Your task to perform on an android device: move a message to another label in the gmail app Image 0: 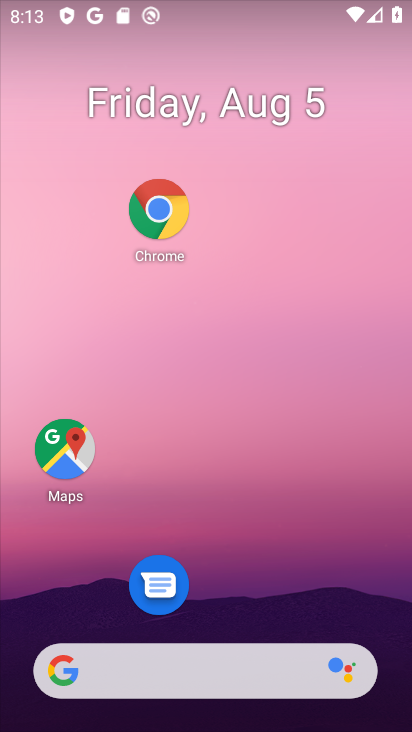
Step 0: drag from (208, 618) to (169, 116)
Your task to perform on an android device: move a message to another label in the gmail app Image 1: 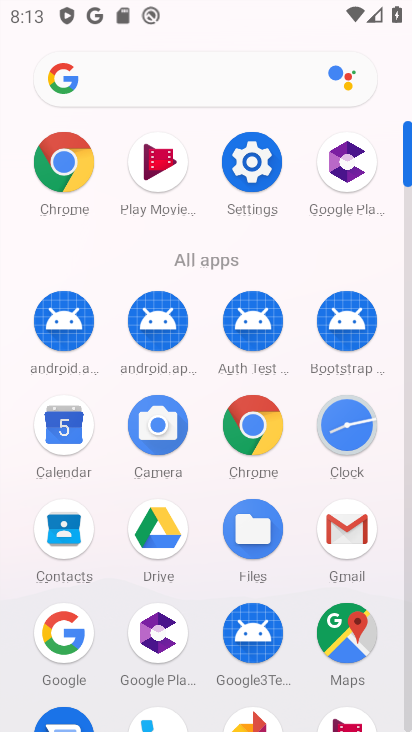
Step 1: drag from (202, 646) to (203, 10)
Your task to perform on an android device: move a message to another label in the gmail app Image 2: 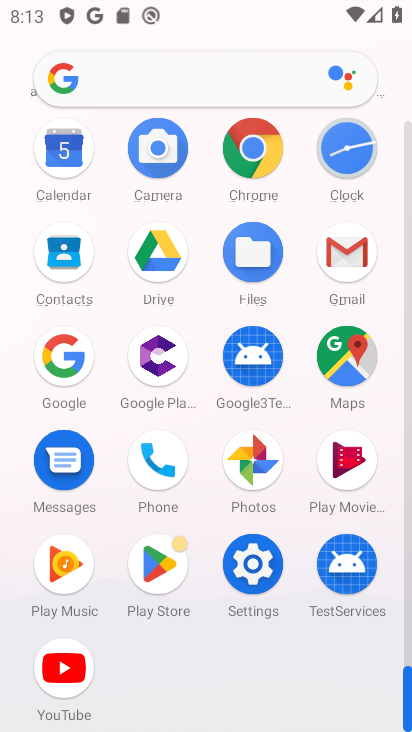
Step 2: click (76, 465)
Your task to perform on an android device: move a message to another label in the gmail app Image 3: 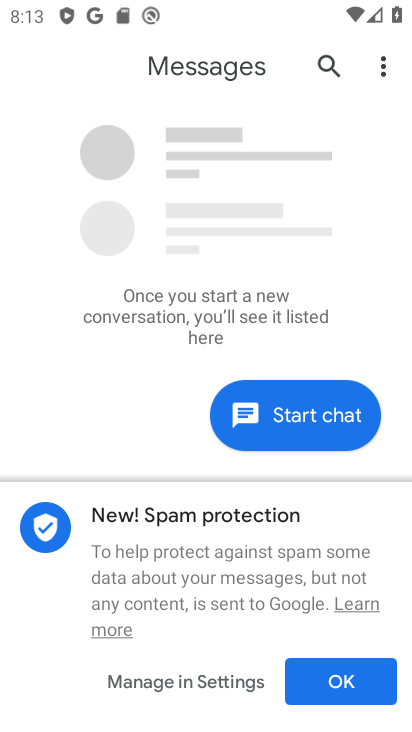
Step 3: click (362, 666)
Your task to perform on an android device: move a message to another label in the gmail app Image 4: 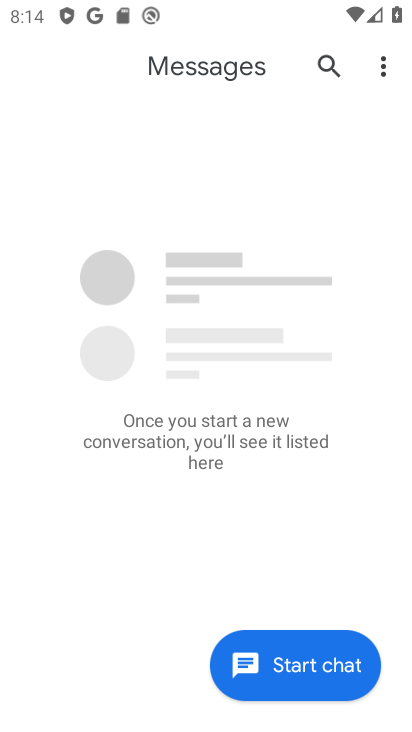
Step 4: press home button
Your task to perform on an android device: move a message to another label in the gmail app Image 5: 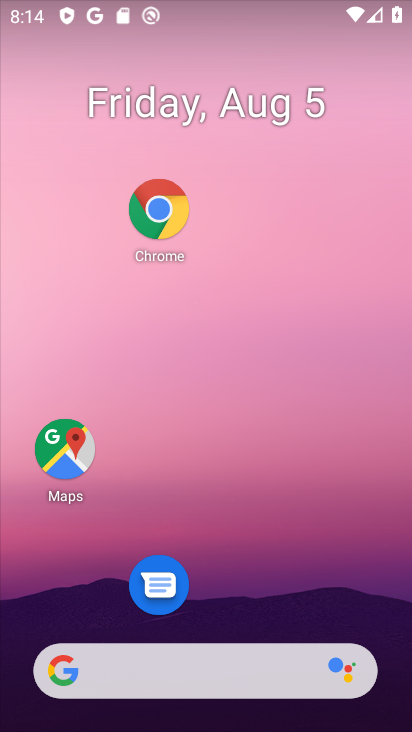
Step 5: drag from (253, 616) to (163, 66)
Your task to perform on an android device: move a message to another label in the gmail app Image 6: 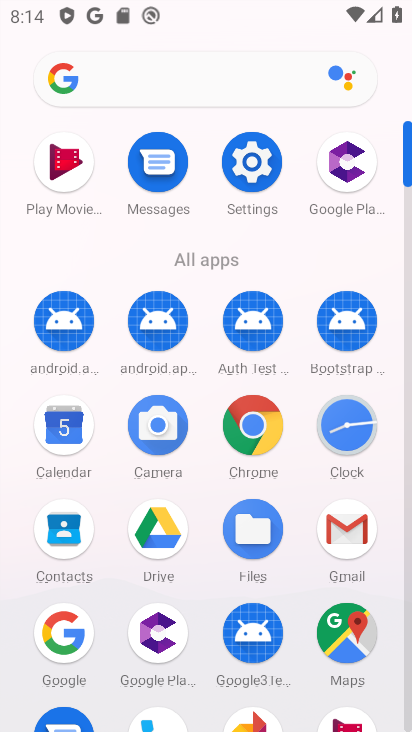
Step 6: click (335, 523)
Your task to perform on an android device: move a message to another label in the gmail app Image 7: 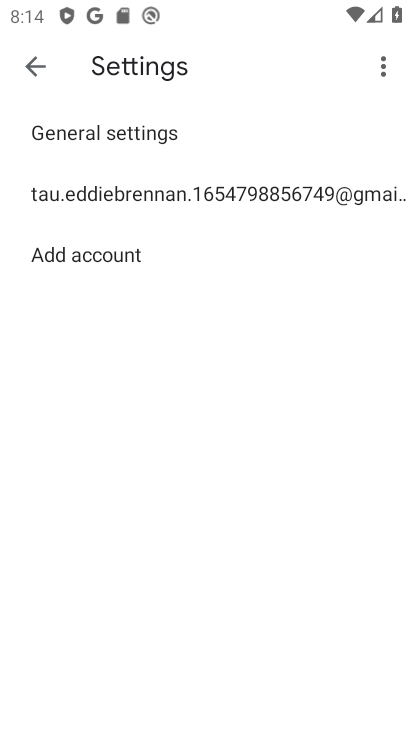
Step 7: click (86, 47)
Your task to perform on an android device: move a message to another label in the gmail app Image 8: 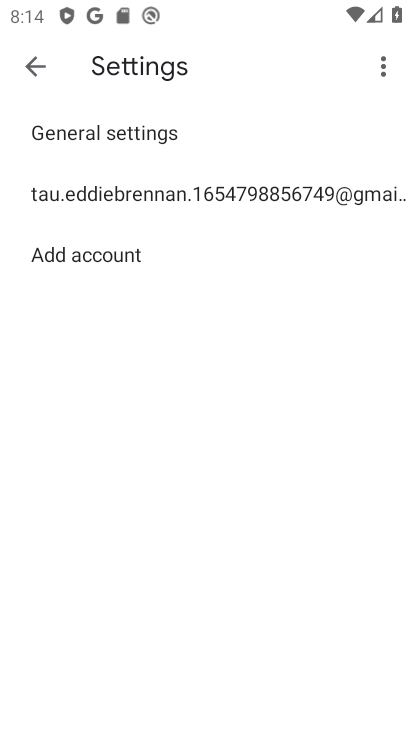
Step 8: click (39, 56)
Your task to perform on an android device: move a message to another label in the gmail app Image 9: 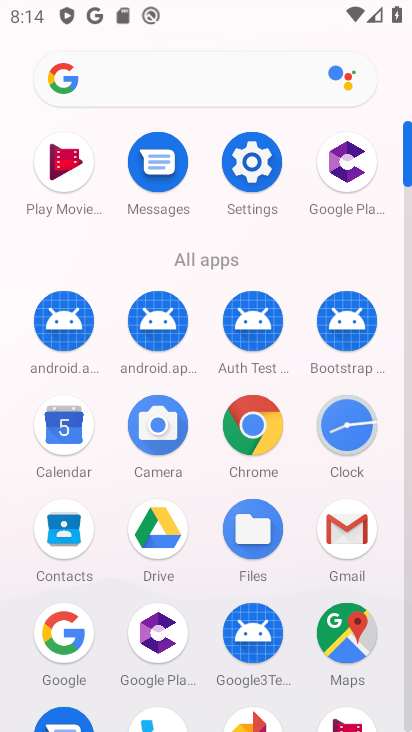
Step 9: click (341, 501)
Your task to perform on an android device: move a message to another label in the gmail app Image 10: 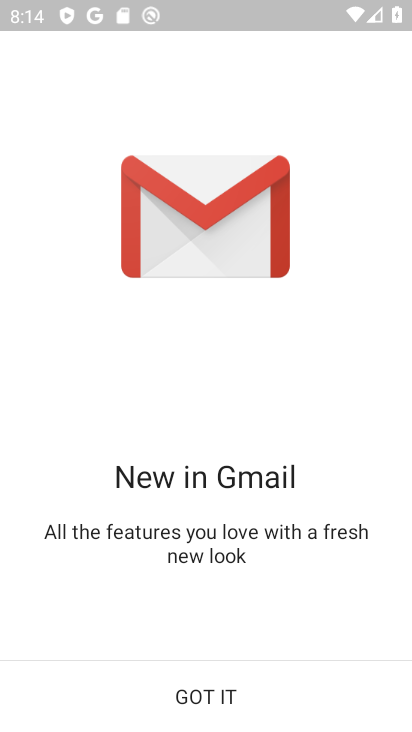
Step 10: click (273, 704)
Your task to perform on an android device: move a message to another label in the gmail app Image 11: 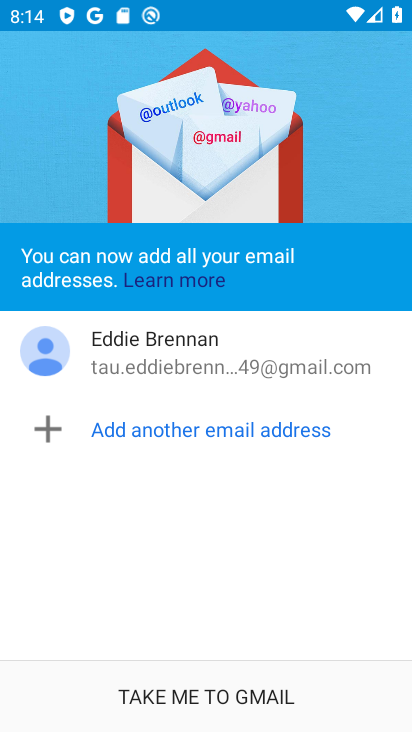
Step 11: click (268, 704)
Your task to perform on an android device: move a message to another label in the gmail app Image 12: 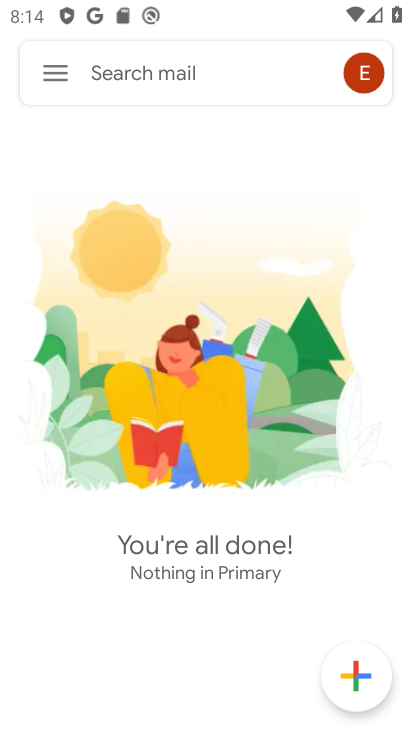
Step 12: task complete